Your task to perform on an android device: turn off translation in the chrome app Image 0: 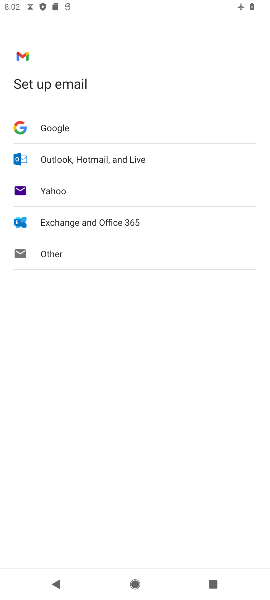
Step 0: press home button
Your task to perform on an android device: turn off translation in the chrome app Image 1: 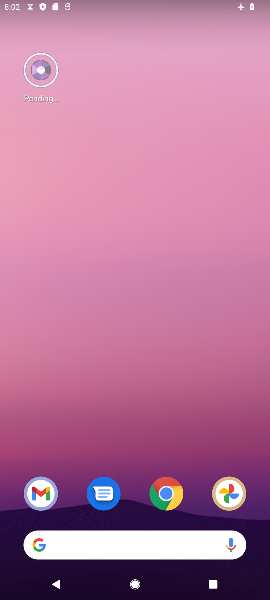
Step 1: drag from (131, 512) to (119, 133)
Your task to perform on an android device: turn off translation in the chrome app Image 2: 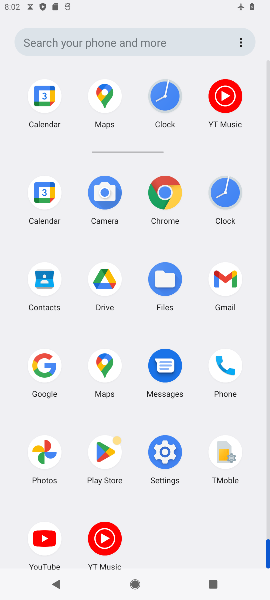
Step 2: click (156, 195)
Your task to perform on an android device: turn off translation in the chrome app Image 3: 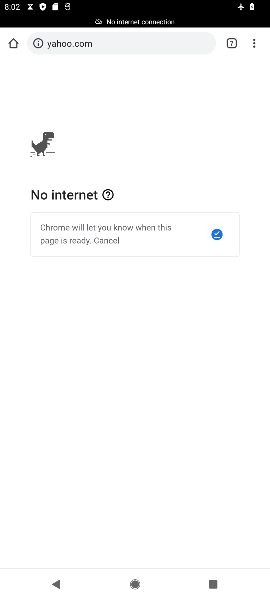
Step 3: click (258, 44)
Your task to perform on an android device: turn off translation in the chrome app Image 4: 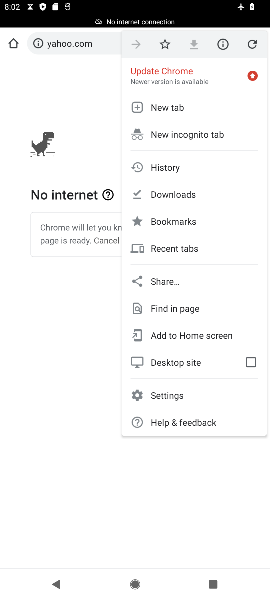
Step 4: click (172, 386)
Your task to perform on an android device: turn off translation in the chrome app Image 5: 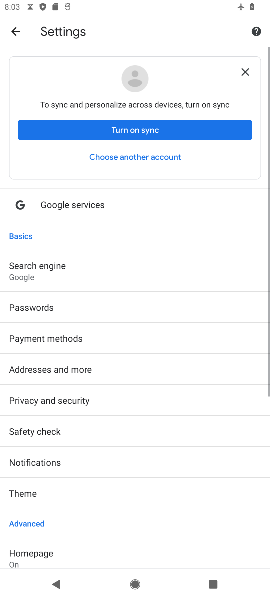
Step 5: drag from (63, 513) to (115, 145)
Your task to perform on an android device: turn off translation in the chrome app Image 6: 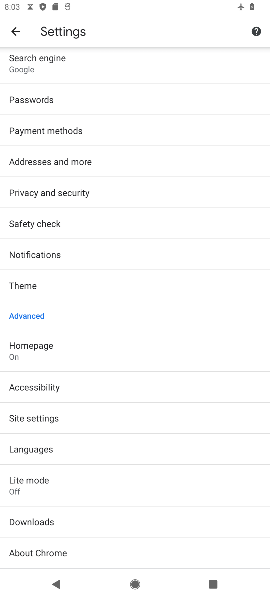
Step 6: click (56, 439)
Your task to perform on an android device: turn off translation in the chrome app Image 7: 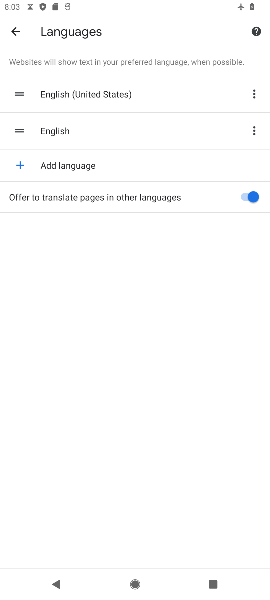
Step 7: click (240, 189)
Your task to perform on an android device: turn off translation in the chrome app Image 8: 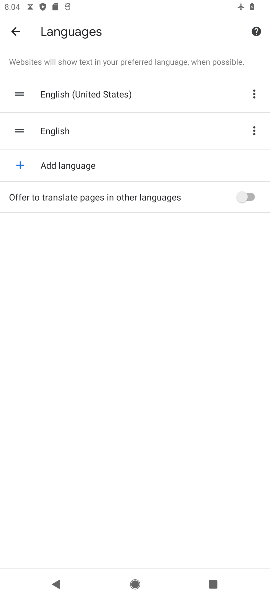
Step 8: task complete